Your task to perform on an android device: Open Google Maps Image 0: 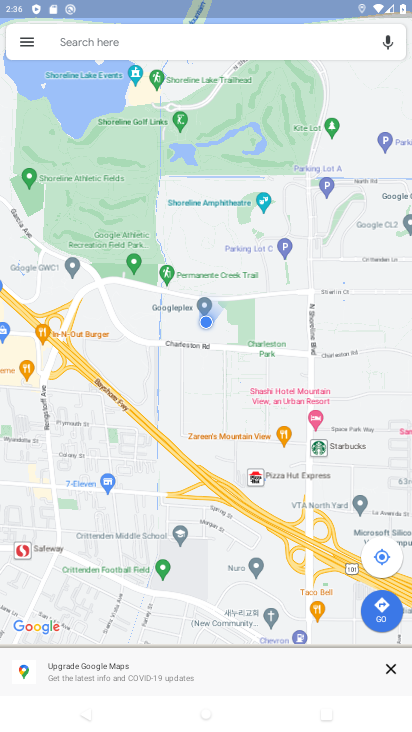
Step 0: task complete